Your task to perform on an android device: change alarm snooze length Image 0: 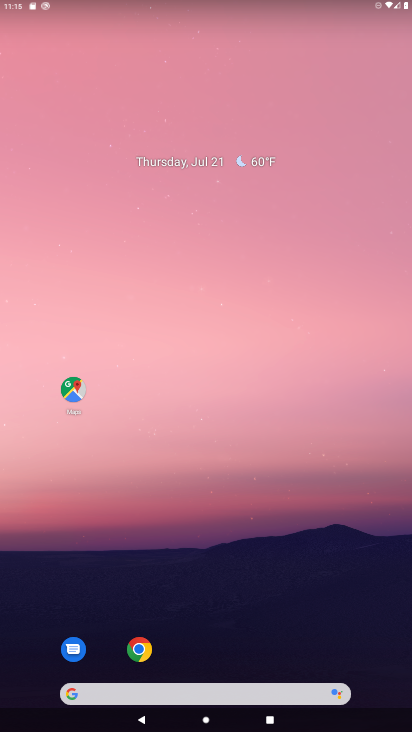
Step 0: drag from (381, 569) to (354, 50)
Your task to perform on an android device: change alarm snooze length Image 1: 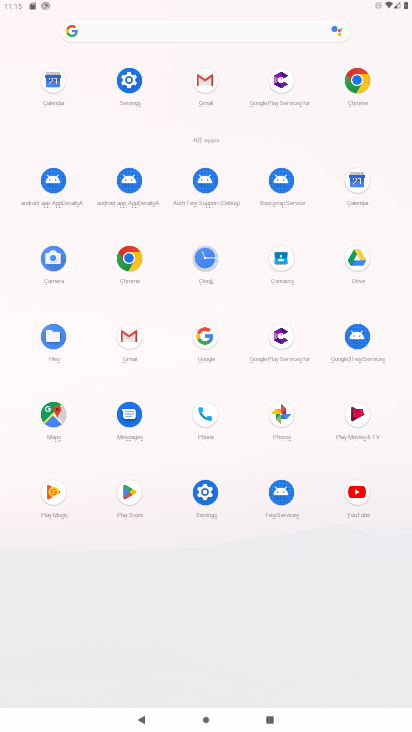
Step 1: click (205, 261)
Your task to perform on an android device: change alarm snooze length Image 2: 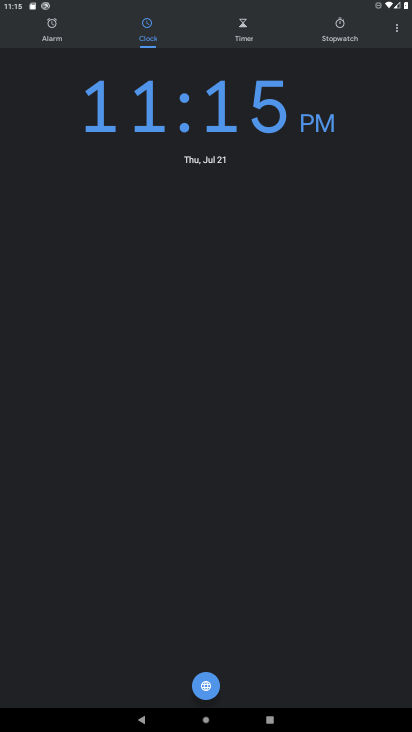
Step 2: click (399, 38)
Your task to perform on an android device: change alarm snooze length Image 3: 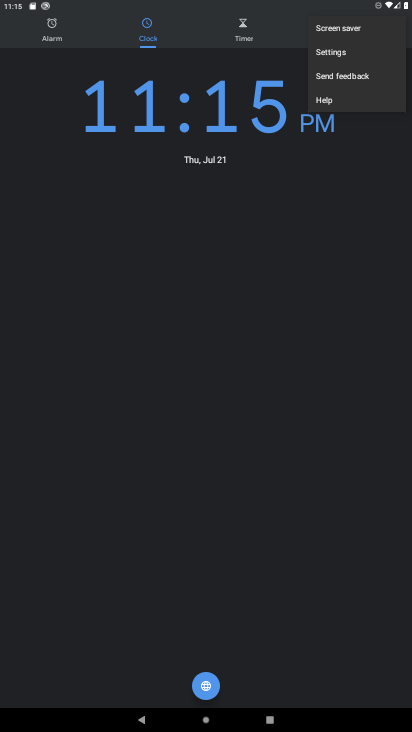
Step 3: click (331, 58)
Your task to perform on an android device: change alarm snooze length Image 4: 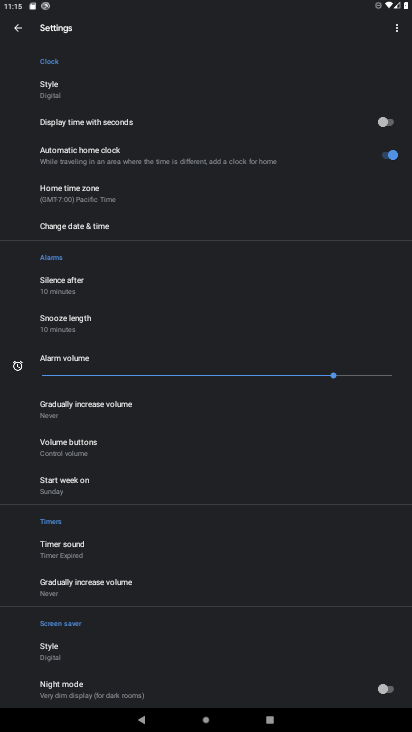
Step 4: click (57, 321)
Your task to perform on an android device: change alarm snooze length Image 5: 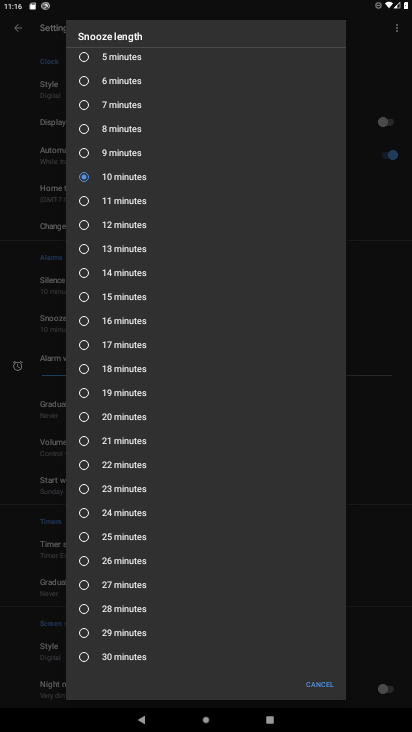
Step 5: click (87, 129)
Your task to perform on an android device: change alarm snooze length Image 6: 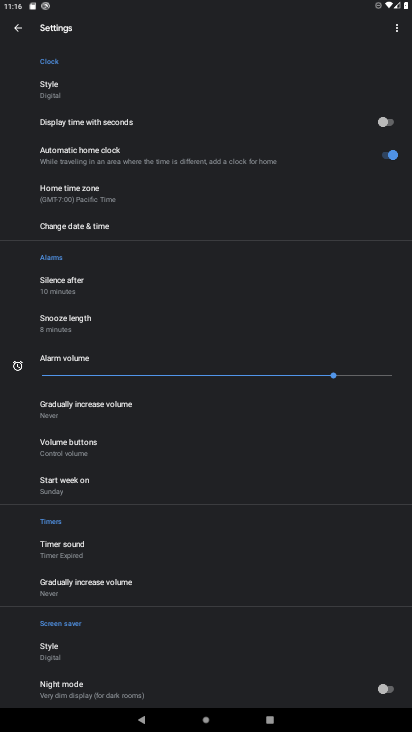
Step 6: task complete